Your task to perform on an android device: add a contact Image 0: 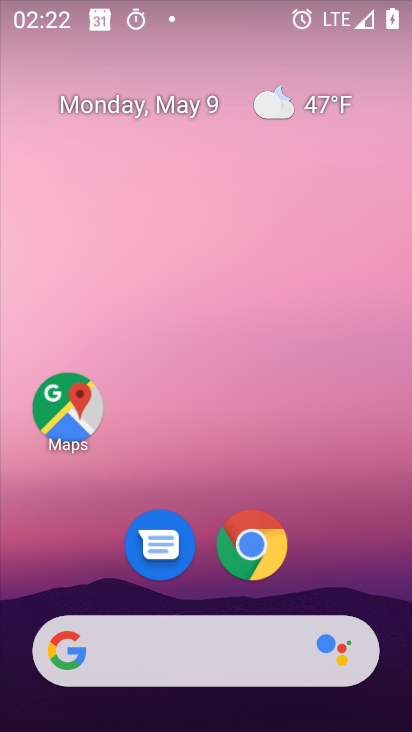
Step 0: drag from (289, 607) to (306, 7)
Your task to perform on an android device: add a contact Image 1: 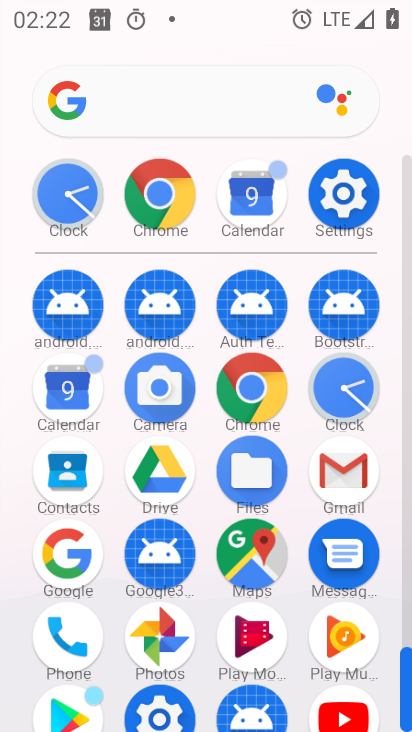
Step 1: click (56, 479)
Your task to perform on an android device: add a contact Image 2: 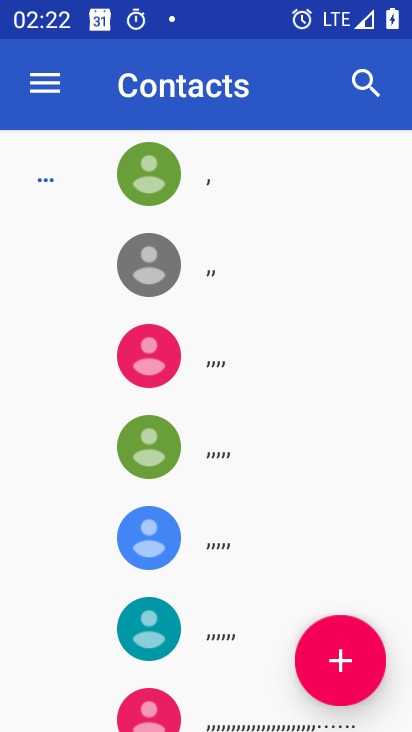
Step 2: click (307, 667)
Your task to perform on an android device: add a contact Image 3: 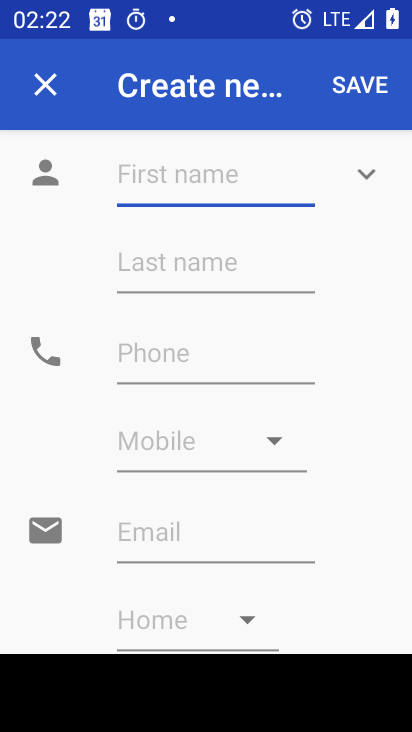
Step 3: type "vjhfhjddfg"
Your task to perform on an android device: add a contact Image 4: 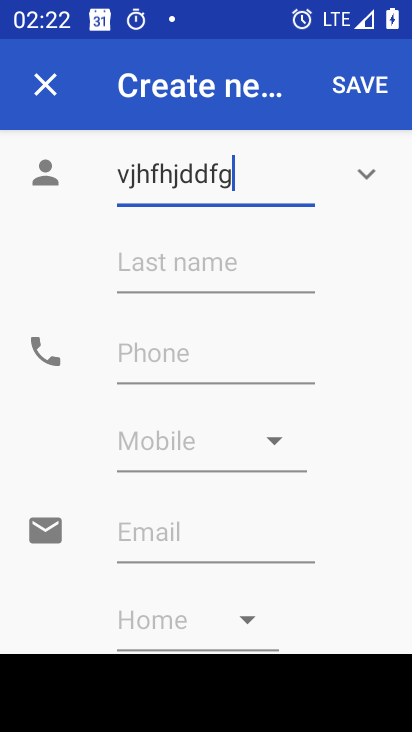
Step 4: click (198, 360)
Your task to perform on an android device: add a contact Image 5: 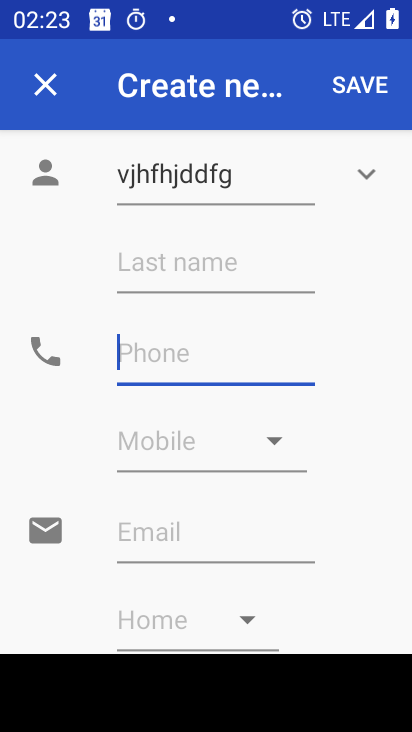
Step 5: type "87655677888"
Your task to perform on an android device: add a contact Image 6: 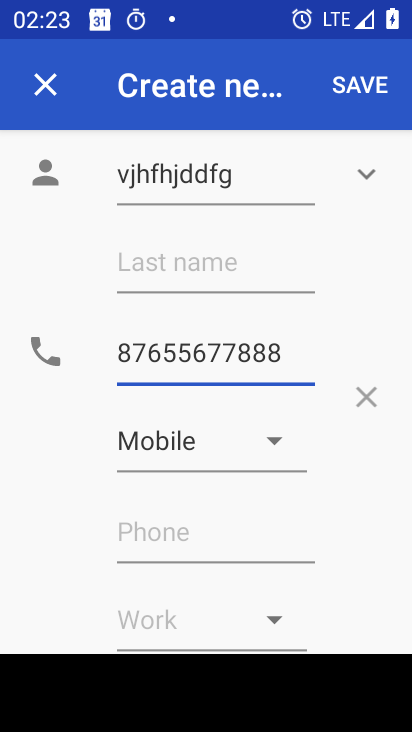
Step 6: click (374, 89)
Your task to perform on an android device: add a contact Image 7: 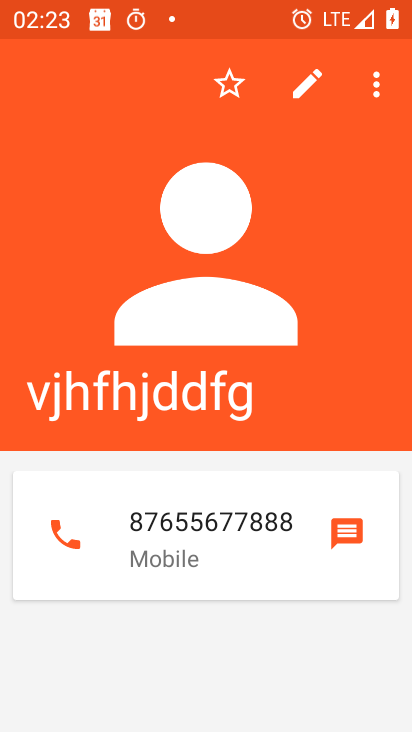
Step 7: task complete